Your task to perform on an android device: refresh tabs in the chrome app Image 0: 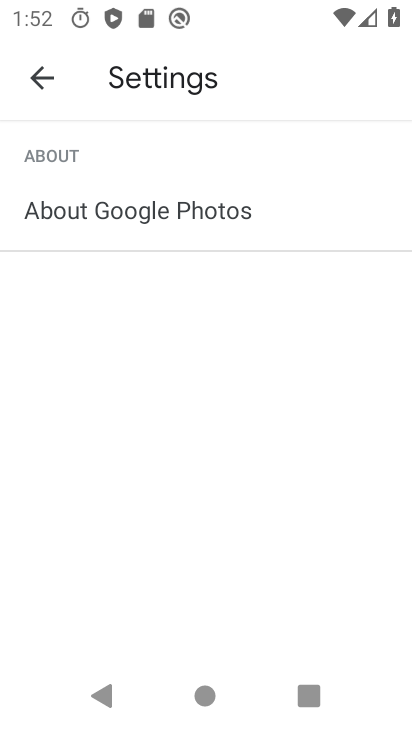
Step 0: press home button
Your task to perform on an android device: refresh tabs in the chrome app Image 1: 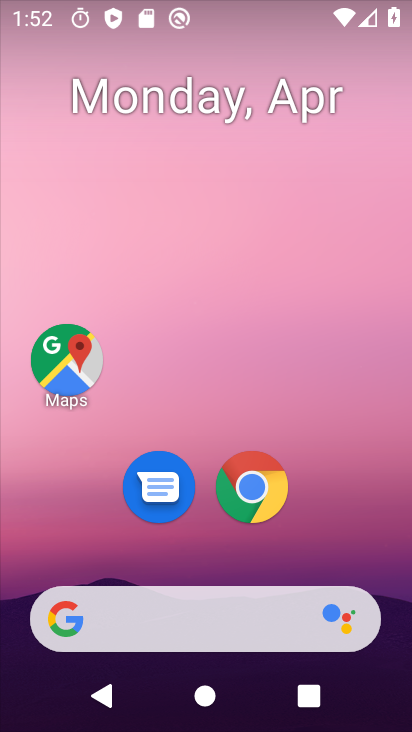
Step 1: drag from (272, 652) to (345, 261)
Your task to perform on an android device: refresh tabs in the chrome app Image 2: 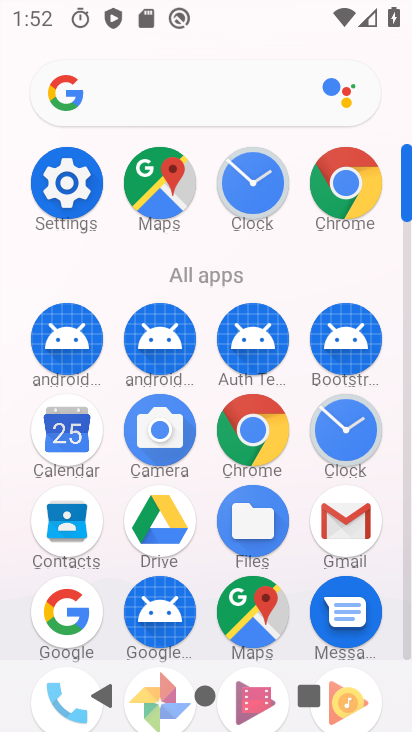
Step 2: click (330, 202)
Your task to perform on an android device: refresh tabs in the chrome app Image 3: 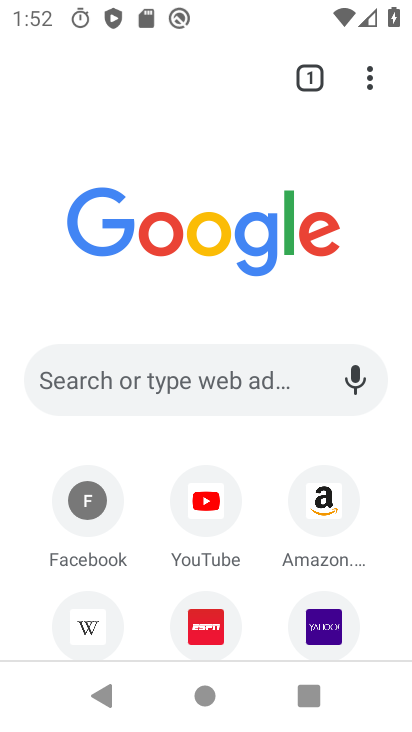
Step 3: click (367, 78)
Your task to perform on an android device: refresh tabs in the chrome app Image 4: 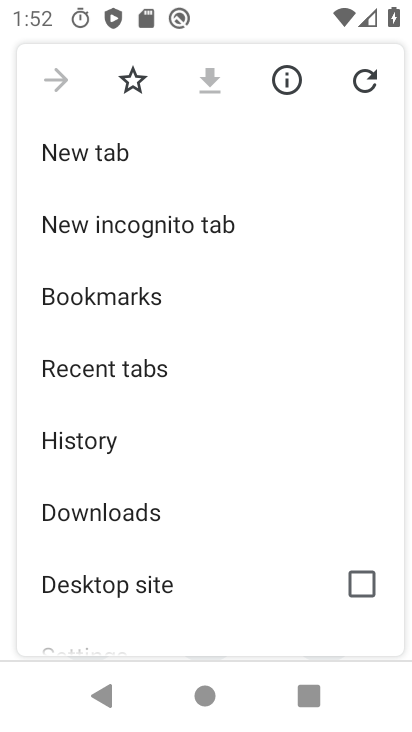
Step 4: click (367, 78)
Your task to perform on an android device: refresh tabs in the chrome app Image 5: 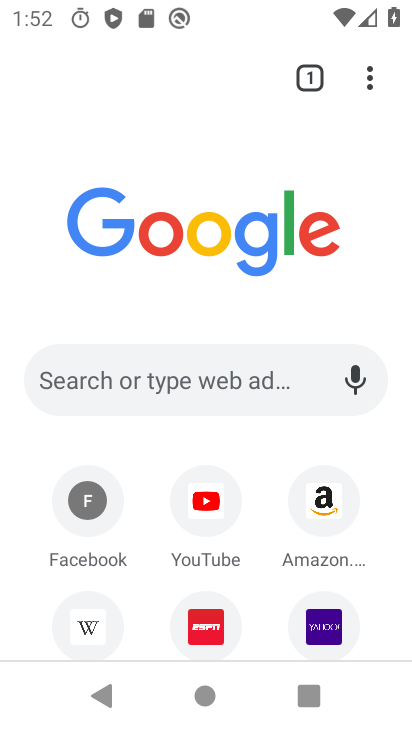
Step 5: task complete